Your task to perform on an android device: When is my next meeting? Image 0: 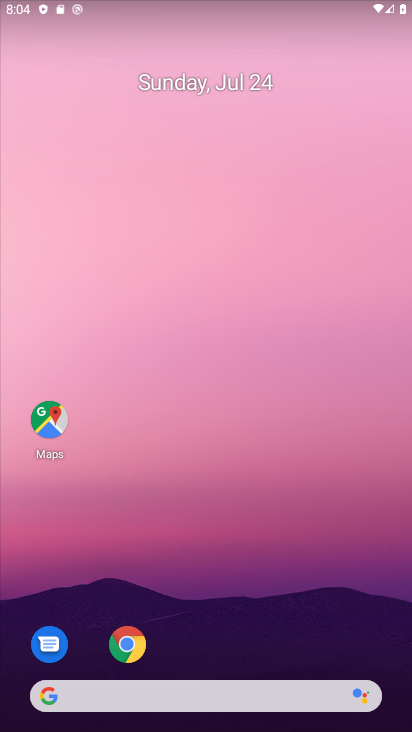
Step 0: drag from (39, 538) to (251, 113)
Your task to perform on an android device: When is my next meeting? Image 1: 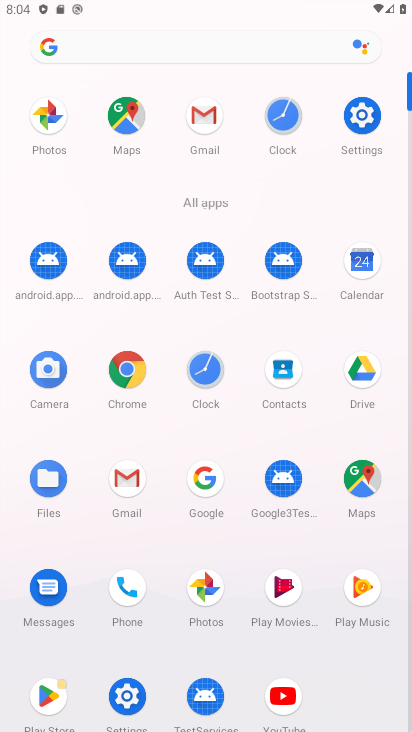
Step 1: click (379, 270)
Your task to perform on an android device: When is my next meeting? Image 2: 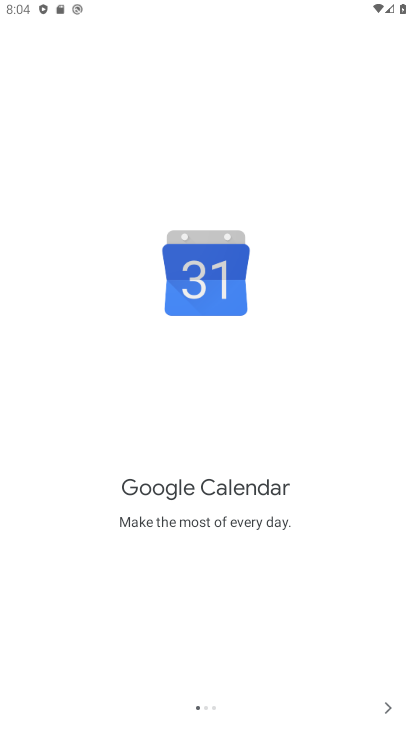
Step 2: click (391, 708)
Your task to perform on an android device: When is my next meeting? Image 3: 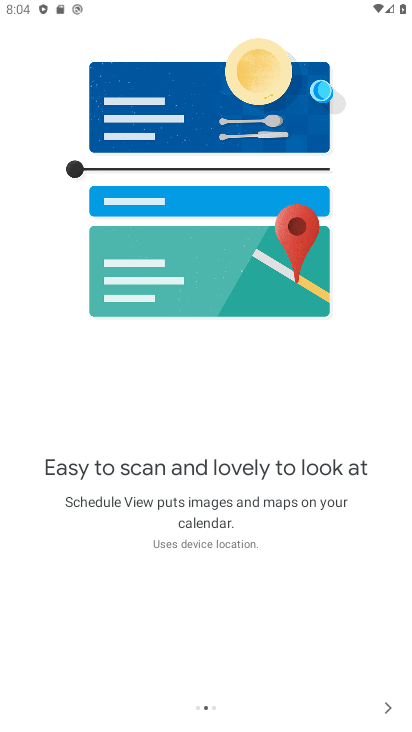
Step 3: click (391, 707)
Your task to perform on an android device: When is my next meeting? Image 4: 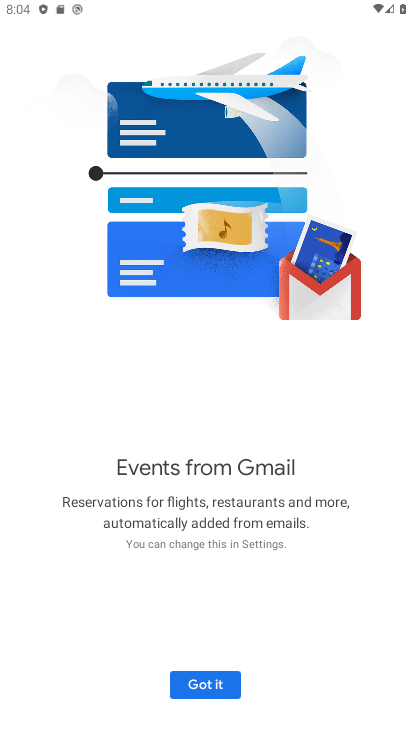
Step 4: click (208, 675)
Your task to perform on an android device: When is my next meeting? Image 5: 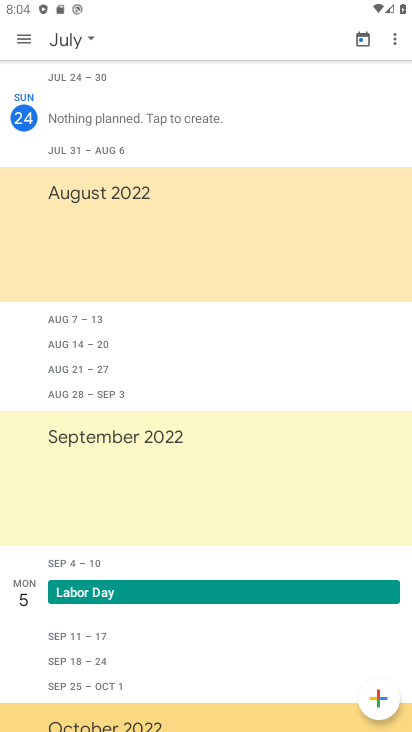
Step 5: click (75, 35)
Your task to perform on an android device: When is my next meeting? Image 6: 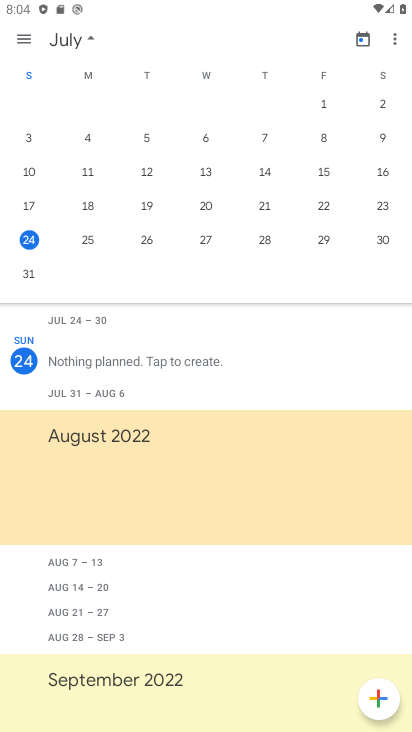
Step 6: task complete